Your task to perform on an android device: toggle data saver in the chrome app Image 0: 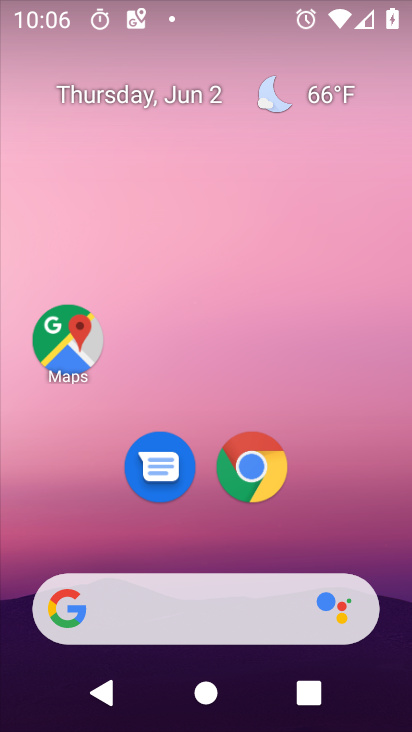
Step 0: click (236, 460)
Your task to perform on an android device: toggle data saver in the chrome app Image 1: 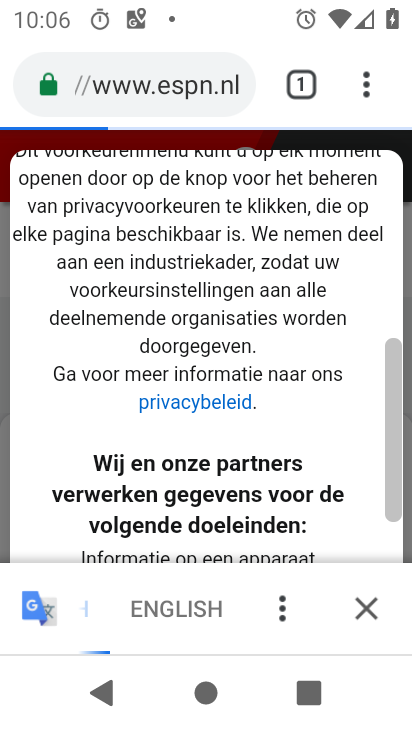
Step 1: click (362, 606)
Your task to perform on an android device: toggle data saver in the chrome app Image 2: 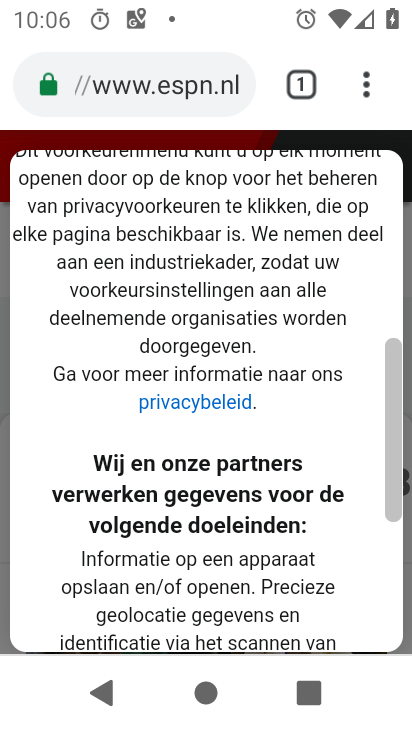
Step 2: click (366, 82)
Your task to perform on an android device: toggle data saver in the chrome app Image 3: 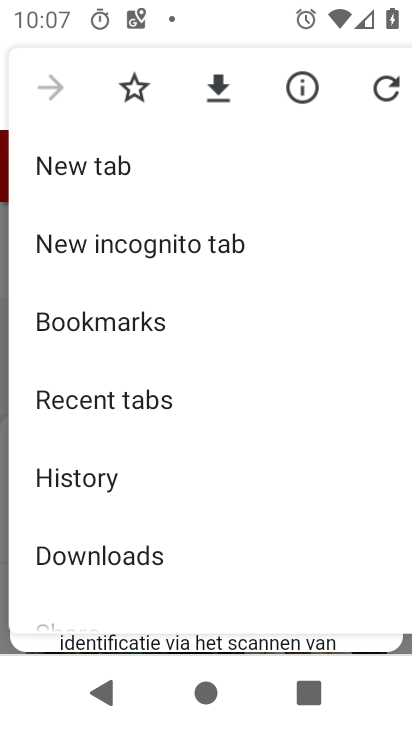
Step 3: drag from (107, 599) to (304, 146)
Your task to perform on an android device: toggle data saver in the chrome app Image 4: 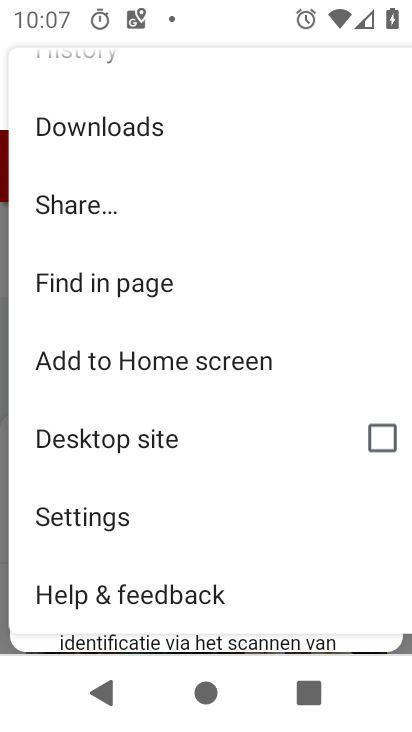
Step 4: click (117, 511)
Your task to perform on an android device: toggle data saver in the chrome app Image 5: 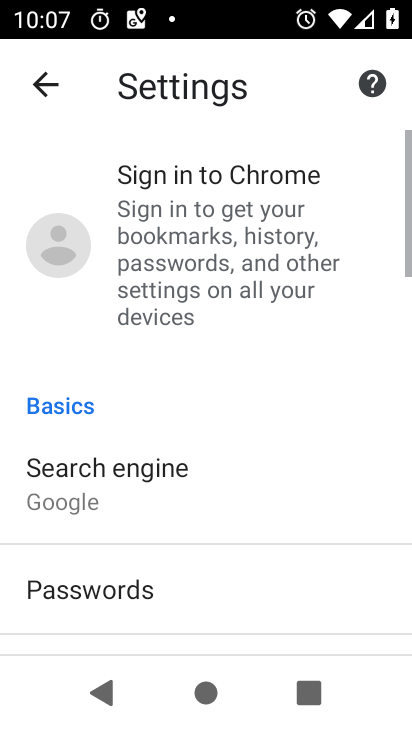
Step 5: drag from (7, 498) to (197, 170)
Your task to perform on an android device: toggle data saver in the chrome app Image 6: 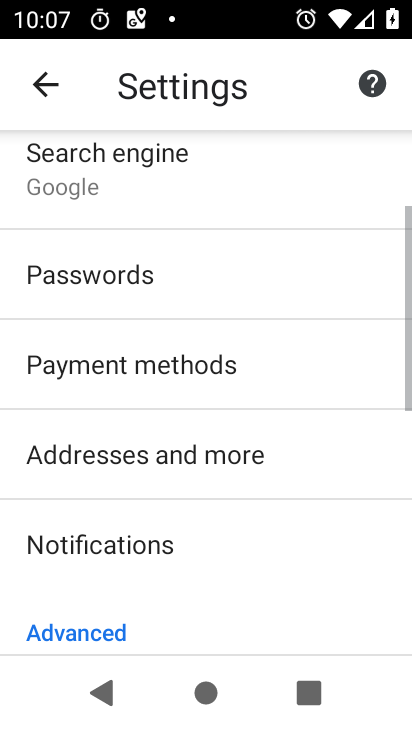
Step 6: drag from (27, 566) to (288, 196)
Your task to perform on an android device: toggle data saver in the chrome app Image 7: 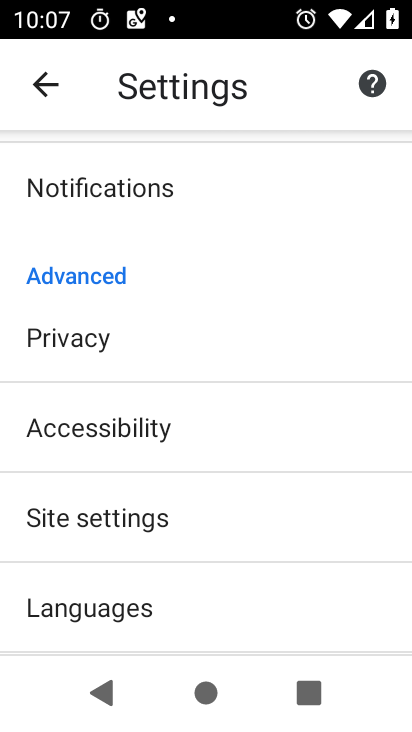
Step 7: drag from (62, 630) to (247, 266)
Your task to perform on an android device: toggle data saver in the chrome app Image 8: 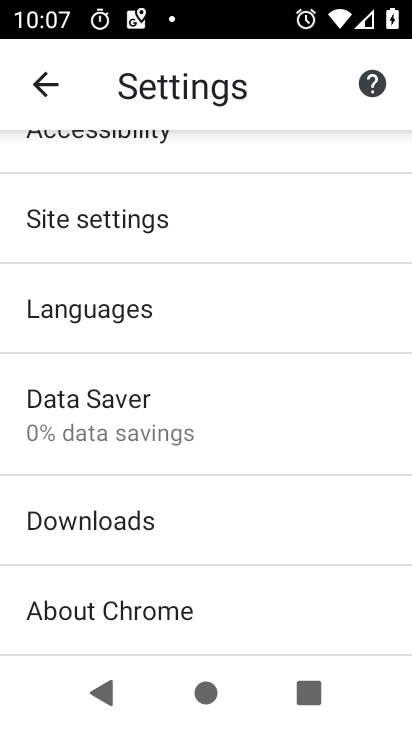
Step 8: click (117, 229)
Your task to perform on an android device: toggle data saver in the chrome app Image 9: 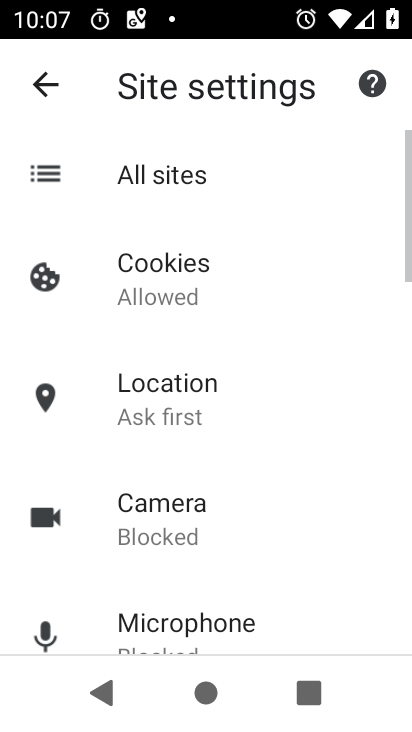
Step 9: drag from (7, 545) to (256, 81)
Your task to perform on an android device: toggle data saver in the chrome app Image 10: 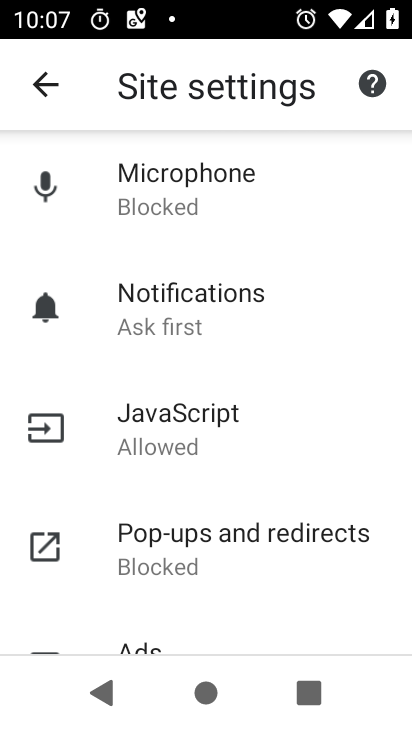
Step 10: drag from (26, 531) to (250, 179)
Your task to perform on an android device: toggle data saver in the chrome app Image 11: 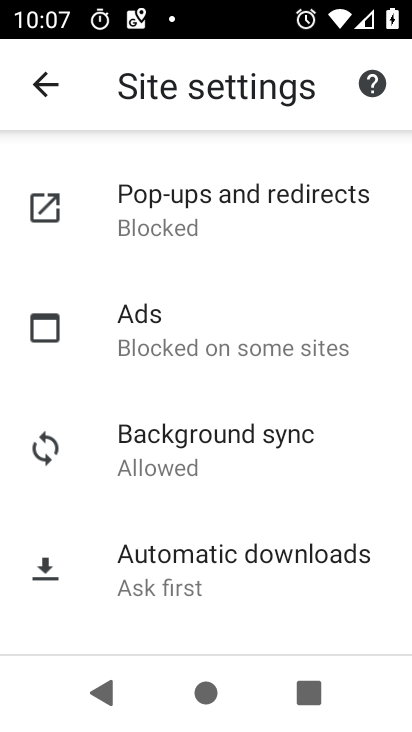
Step 11: drag from (84, 655) to (342, 265)
Your task to perform on an android device: toggle data saver in the chrome app Image 12: 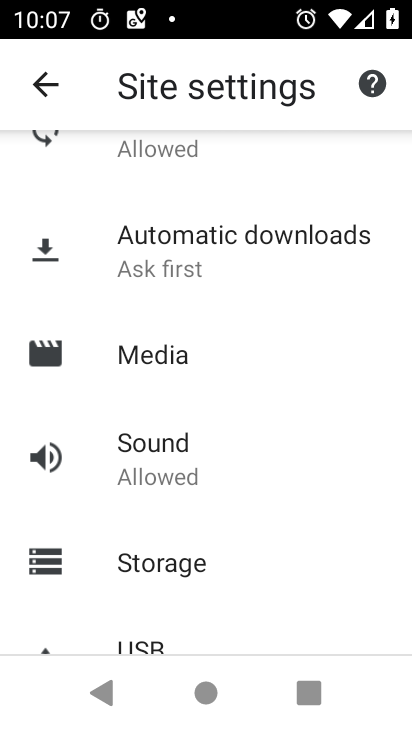
Step 12: drag from (205, 218) to (6, 259)
Your task to perform on an android device: toggle data saver in the chrome app Image 13: 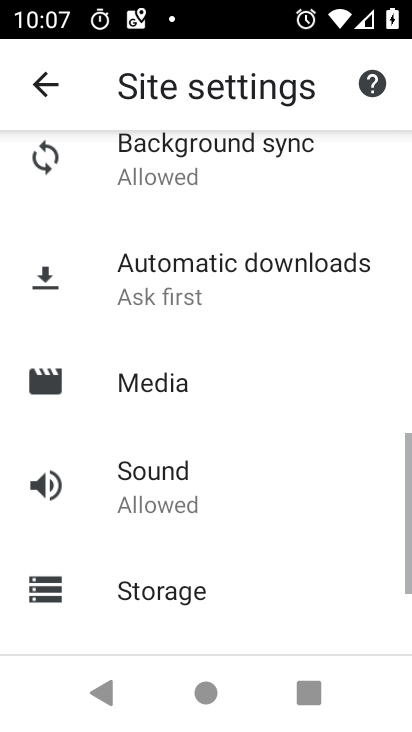
Step 13: drag from (74, 173) to (124, 634)
Your task to perform on an android device: toggle data saver in the chrome app Image 14: 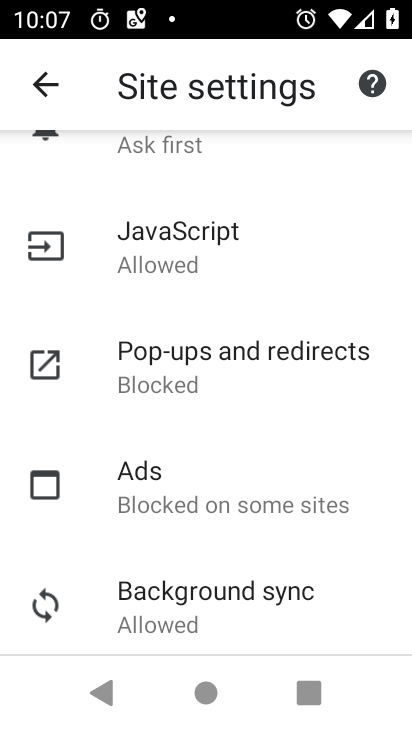
Step 14: drag from (159, 119) to (187, 599)
Your task to perform on an android device: toggle data saver in the chrome app Image 15: 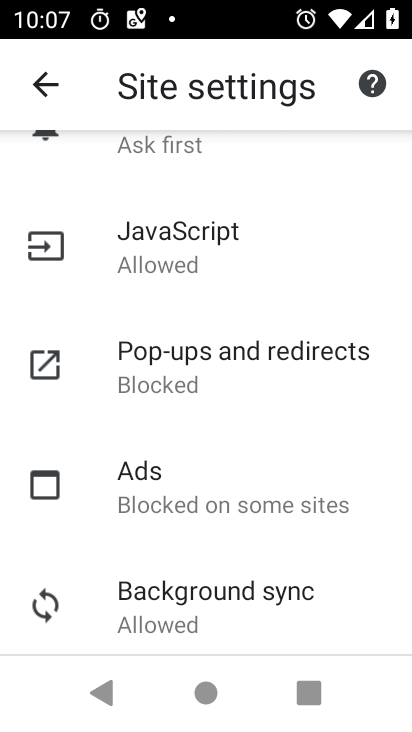
Step 15: press back button
Your task to perform on an android device: toggle data saver in the chrome app Image 16: 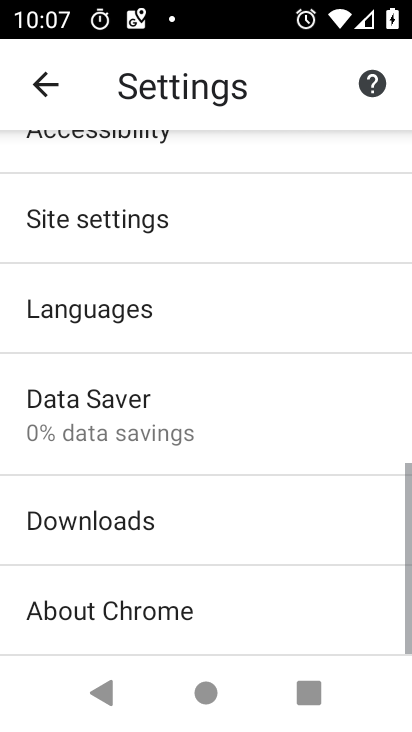
Step 16: click (138, 397)
Your task to perform on an android device: toggle data saver in the chrome app Image 17: 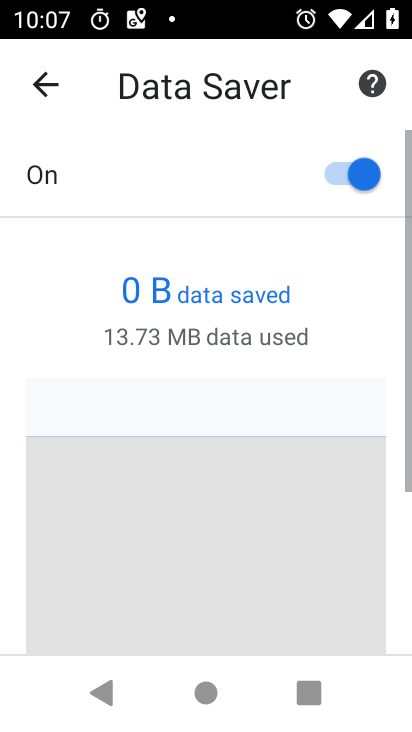
Step 17: click (373, 188)
Your task to perform on an android device: toggle data saver in the chrome app Image 18: 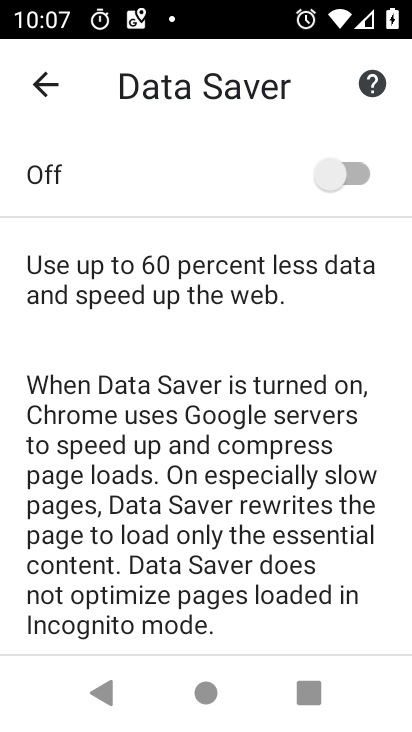
Step 18: task complete